Your task to perform on an android device: Open Wikipedia Image 0: 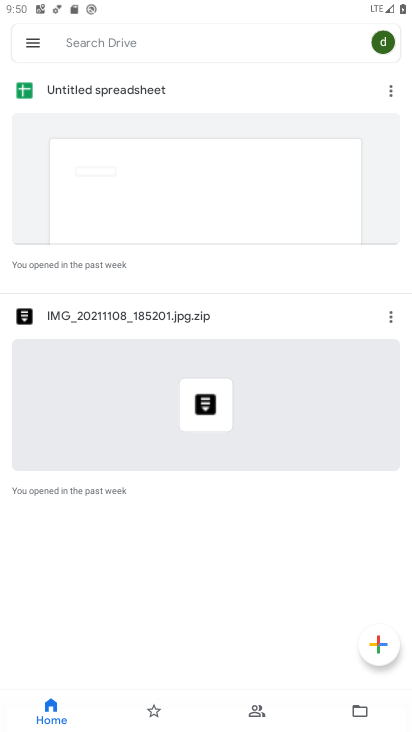
Step 0: press home button
Your task to perform on an android device: Open Wikipedia Image 1: 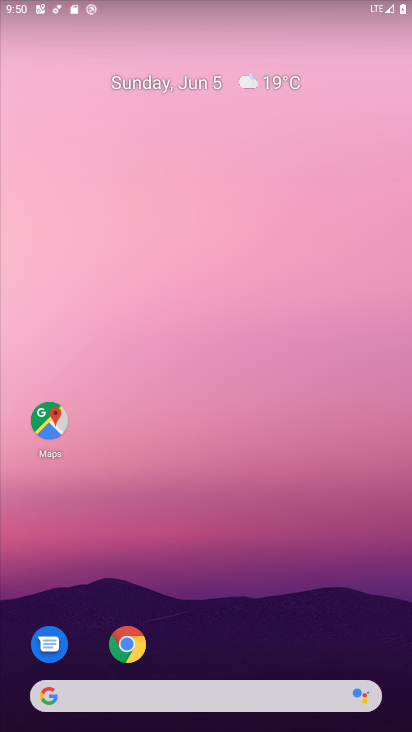
Step 1: click (130, 641)
Your task to perform on an android device: Open Wikipedia Image 2: 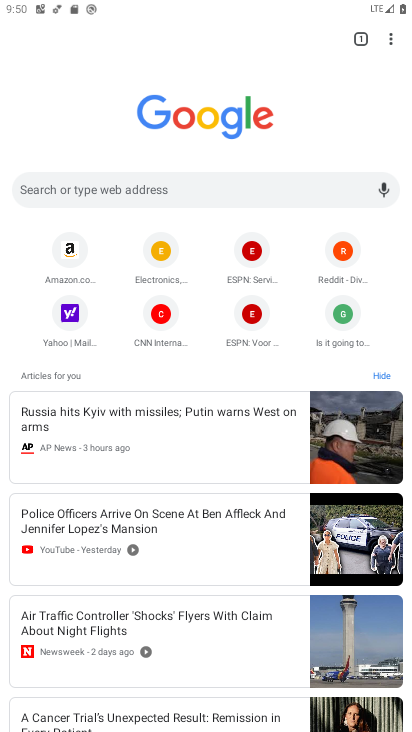
Step 2: click (208, 183)
Your task to perform on an android device: Open Wikipedia Image 3: 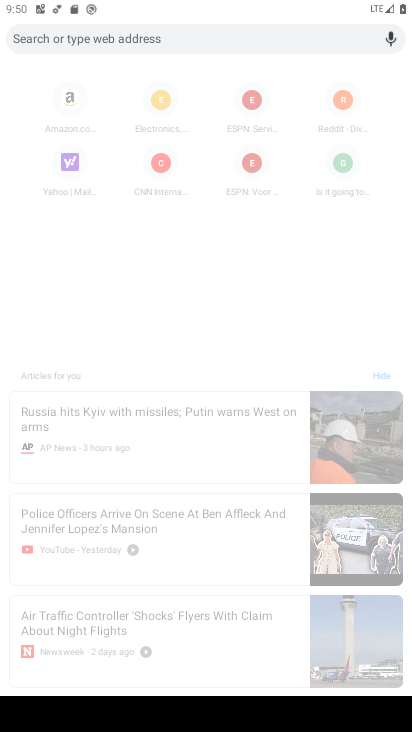
Step 3: type "wikipedia"
Your task to perform on an android device: Open Wikipedia Image 4: 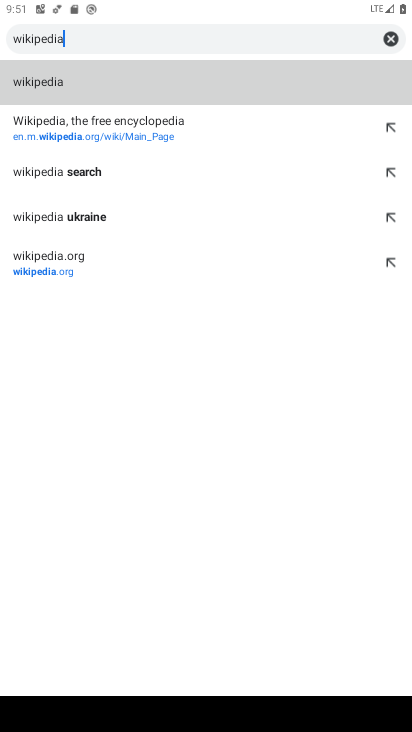
Step 4: click (131, 82)
Your task to perform on an android device: Open Wikipedia Image 5: 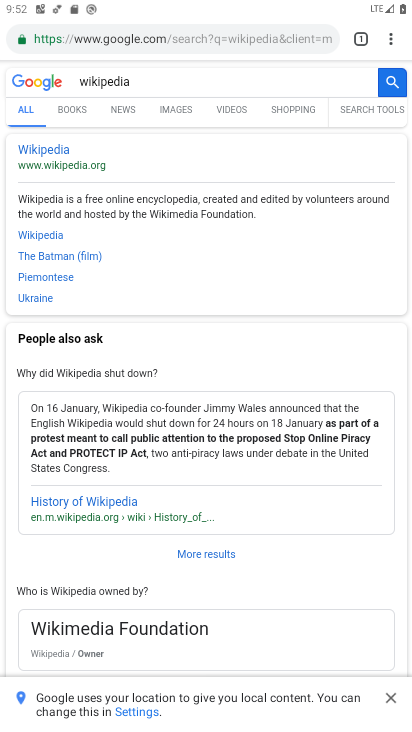
Step 5: task complete